Your task to perform on an android device: Open calendar and show me the third week of next month Image 0: 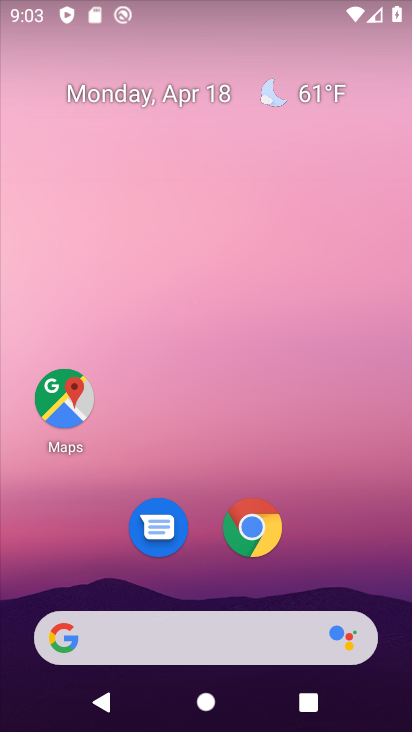
Step 0: drag from (298, 11) to (263, 603)
Your task to perform on an android device: Open calendar and show me the third week of next month Image 1: 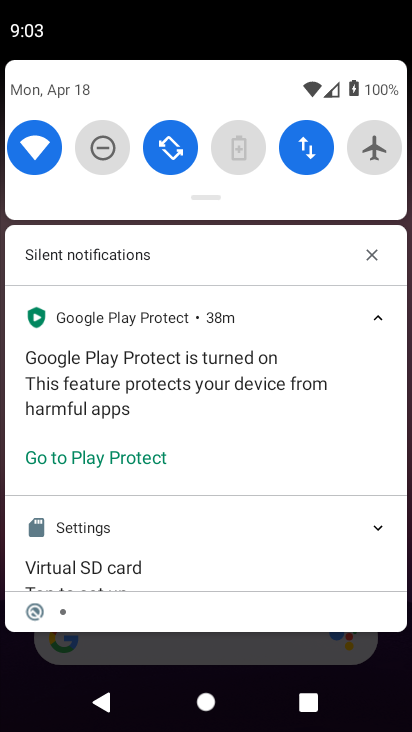
Step 1: drag from (288, 74) to (231, 631)
Your task to perform on an android device: Open calendar and show me the third week of next month Image 2: 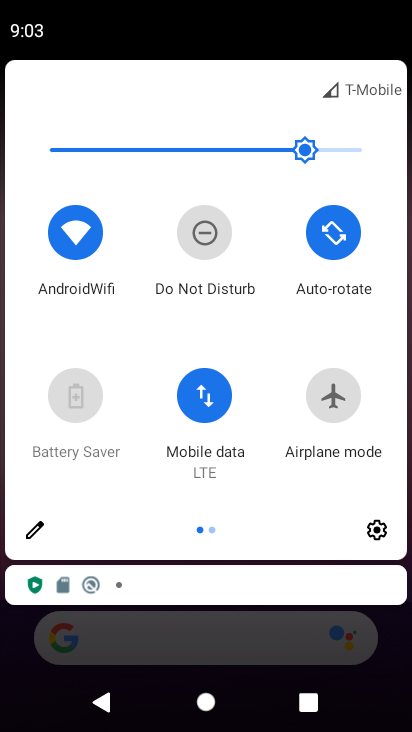
Step 2: click (255, 714)
Your task to perform on an android device: Open calendar and show me the third week of next month Image 3: 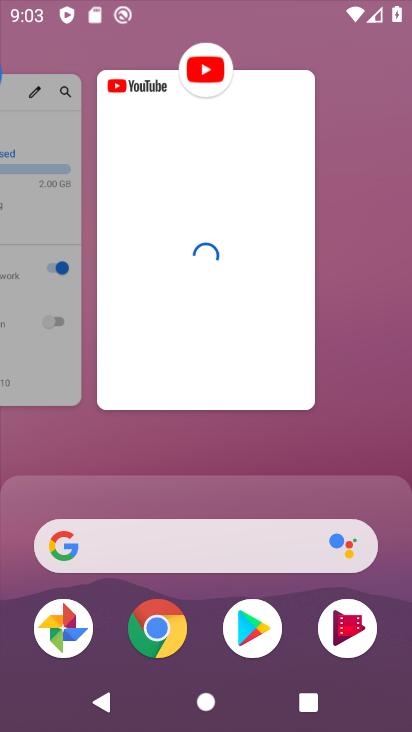
Step 3: click (360, 424)
Your task to perform on an android device: Open calendar and show me the third week of next month Image 4: 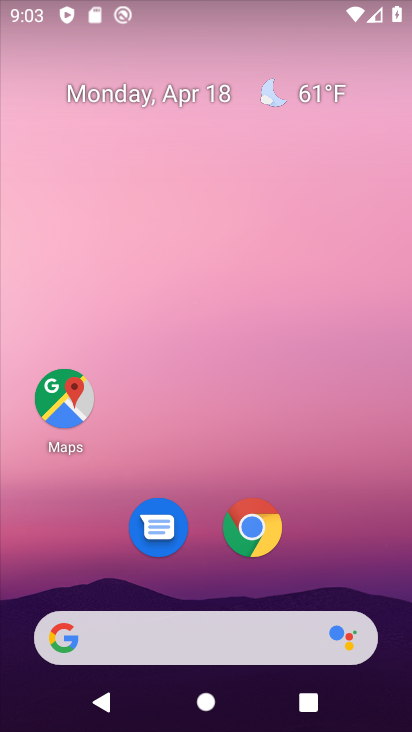
Step 4: click (190, 99)
Your task to perform on an android device: Open calendar and show me the third week of next month Image 5: 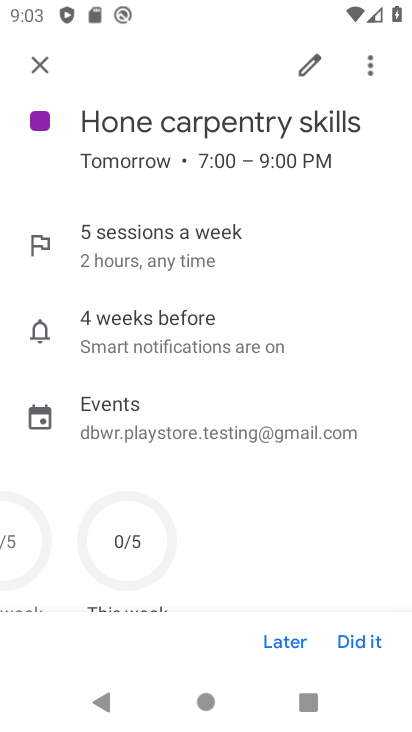
Step 5: click (56, 63)
Your task to perform on an android device: Open calendar and show me the third week of next month Image 6: 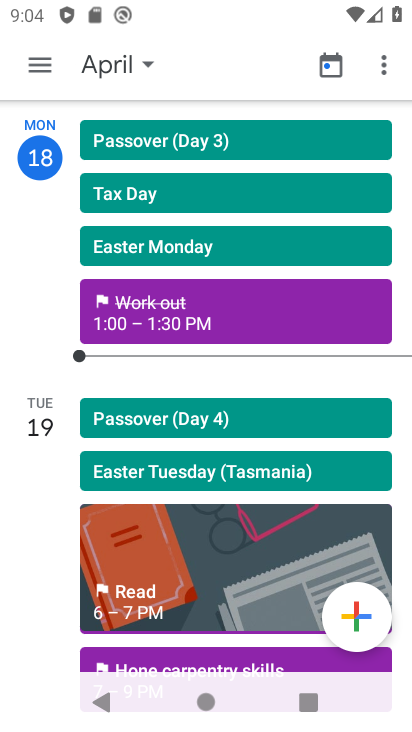
Step 6: click (132, 59)
Your task to perform on an android device: Open calendar and show me the third week of next month Image 7: 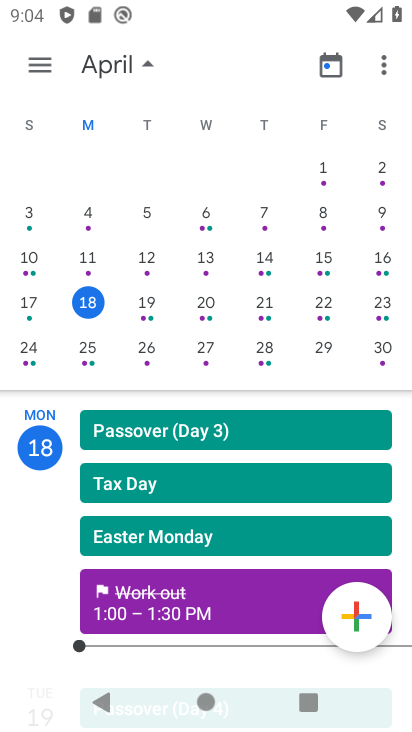
Step 7: drag from (385, 294) to (8, 312)
Your task to perform on an android device: Open calendar and show me the third week of next month Image 8: 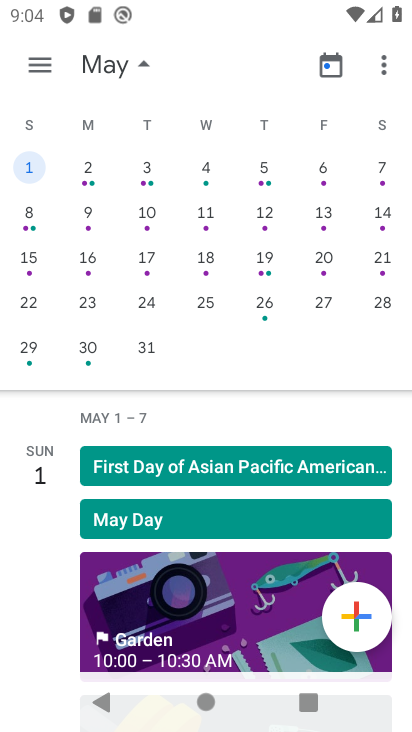
Step 8: click (270, 279)
Your task to perform on an android device: Open calendar and show me the third week of next month Image 9: 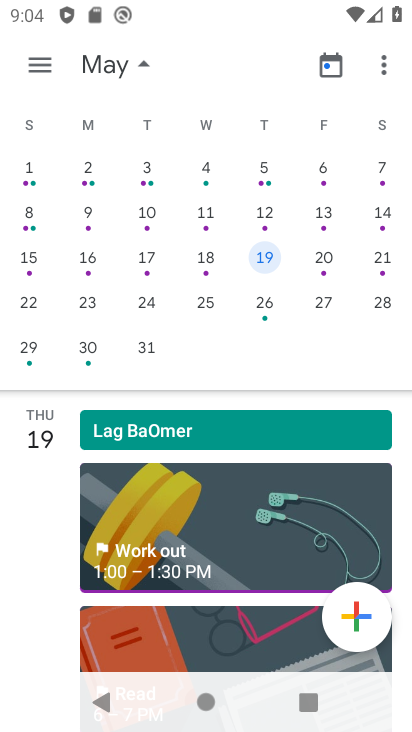
Step 9: task complete